Your task to perform on an android device: What's the weather going to be tomorrow? Image 0: 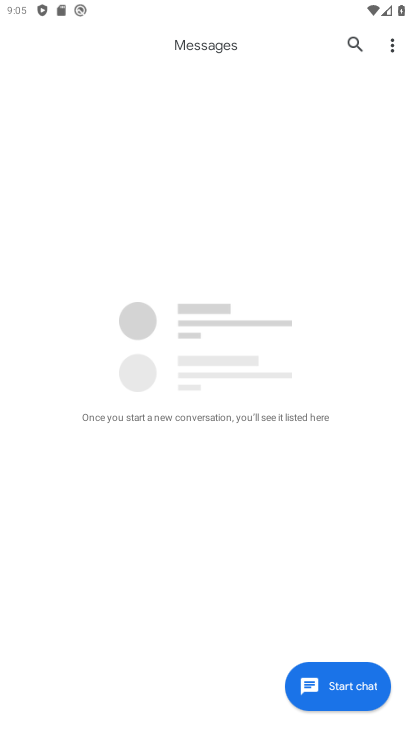
Step 0: press home button
Your task to perform on an android device: What's the weather going to be tomorrow? Image 1: 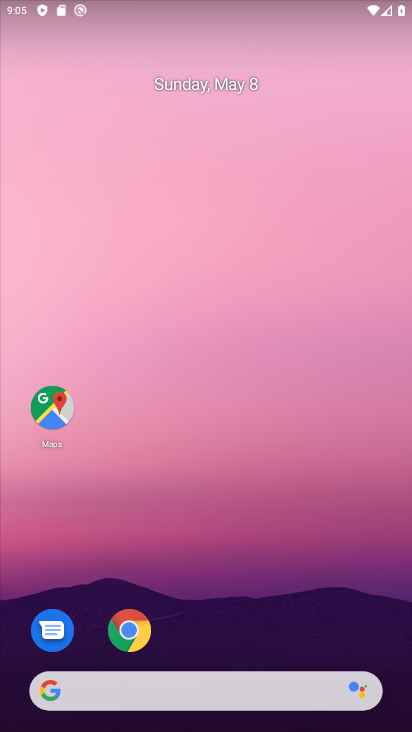
Step 1: click (57, 689)
Your task to perform on an android device: What's the weather going to be tomorrow? Image 2: 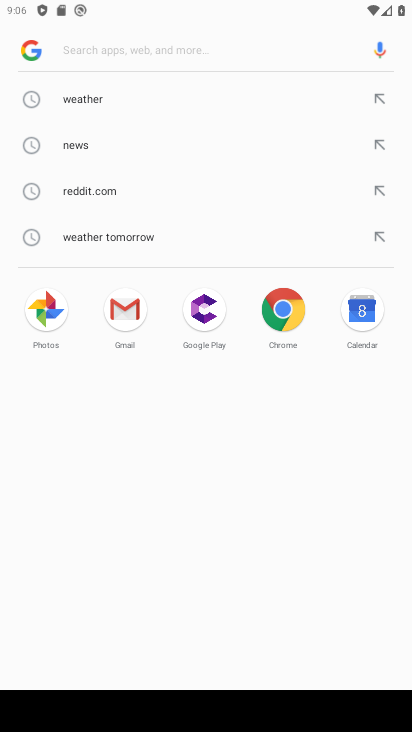
Step 2: click (101, 96)
Your task to perform on an android device: What's the weather going to be tomorrow? Image 3: 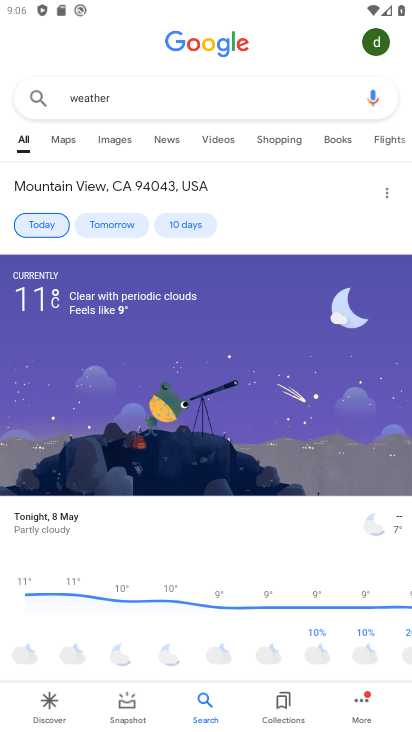
Step 3: click (119, 227)
Your task to perform on an android device: What's the weather going to be tomorrow? Image 4: 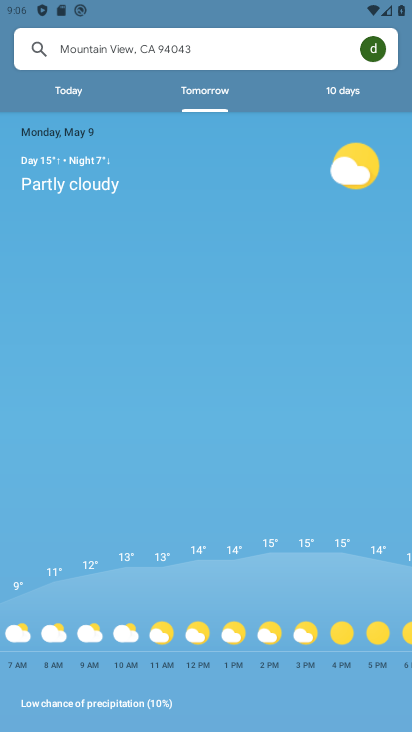
Step 4: task complete